Your task to perform on an android device: make emails show in primary in the gmail app Image 0: 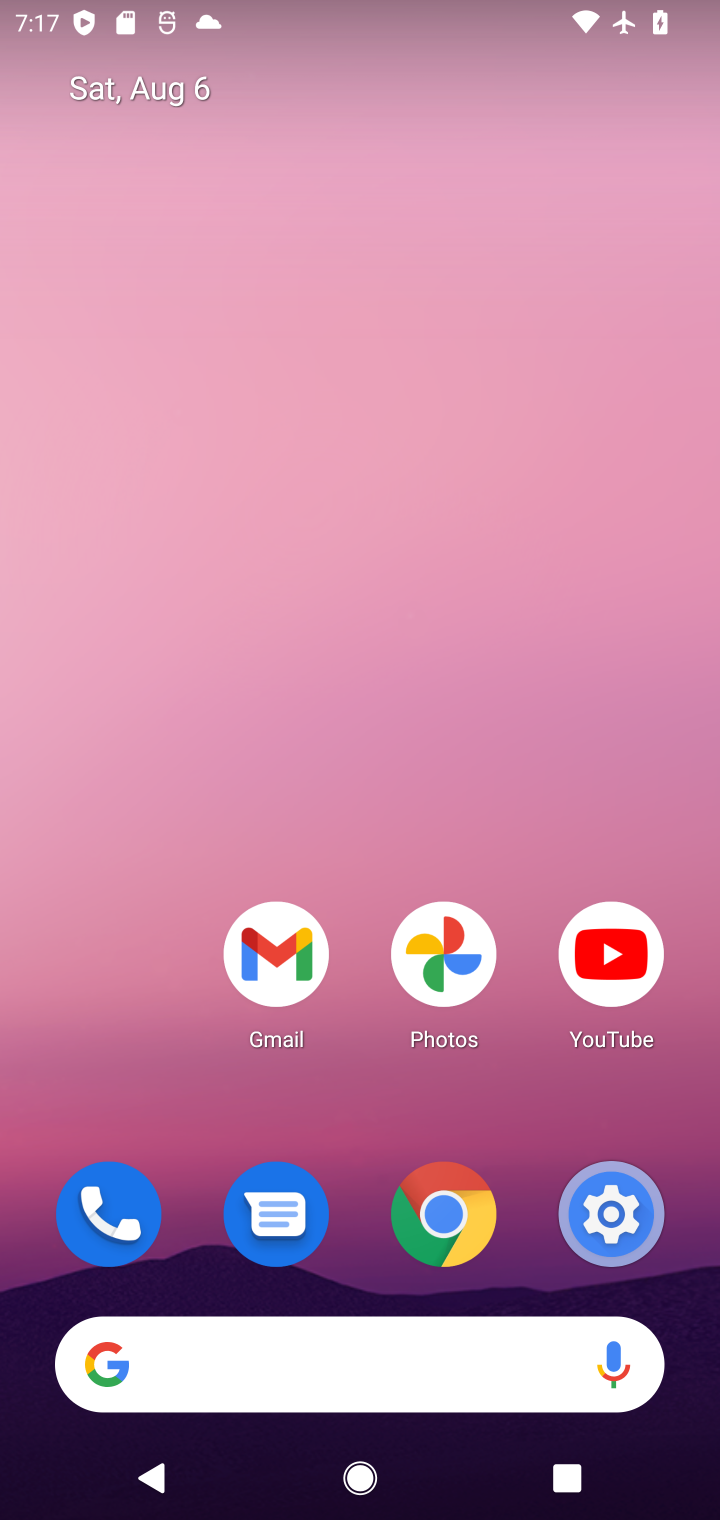
Step 0: click (289, 913)
Your task to perform on an android device: make emails show in primary in the gmail app Image 1: 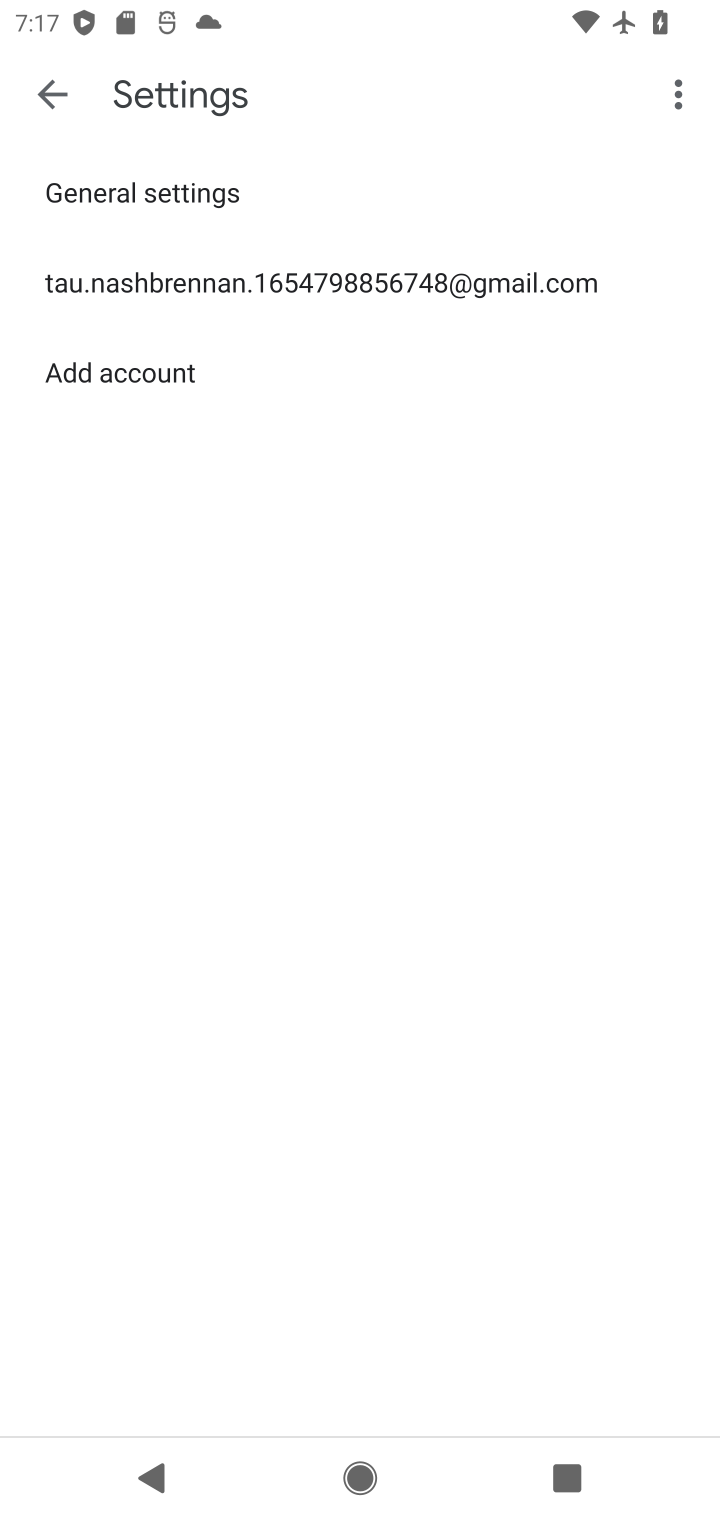
Step 1: click (207, 286)
Your task to perform on an android device: make emails show in primary in the gmail app Image 2: 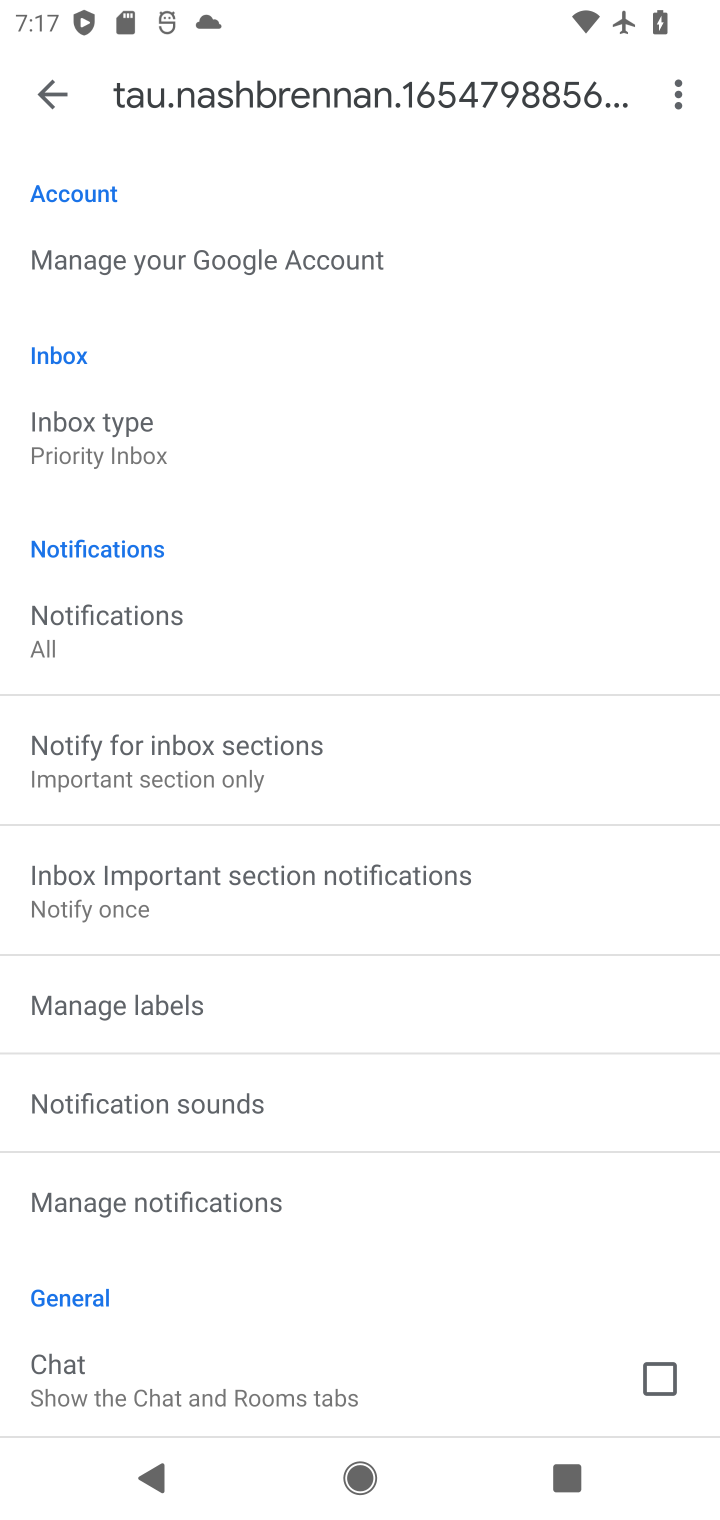
Step 2: click (130, 428)
Your task to perform on an android device: make emails show in primary in the gmail app Image 3: 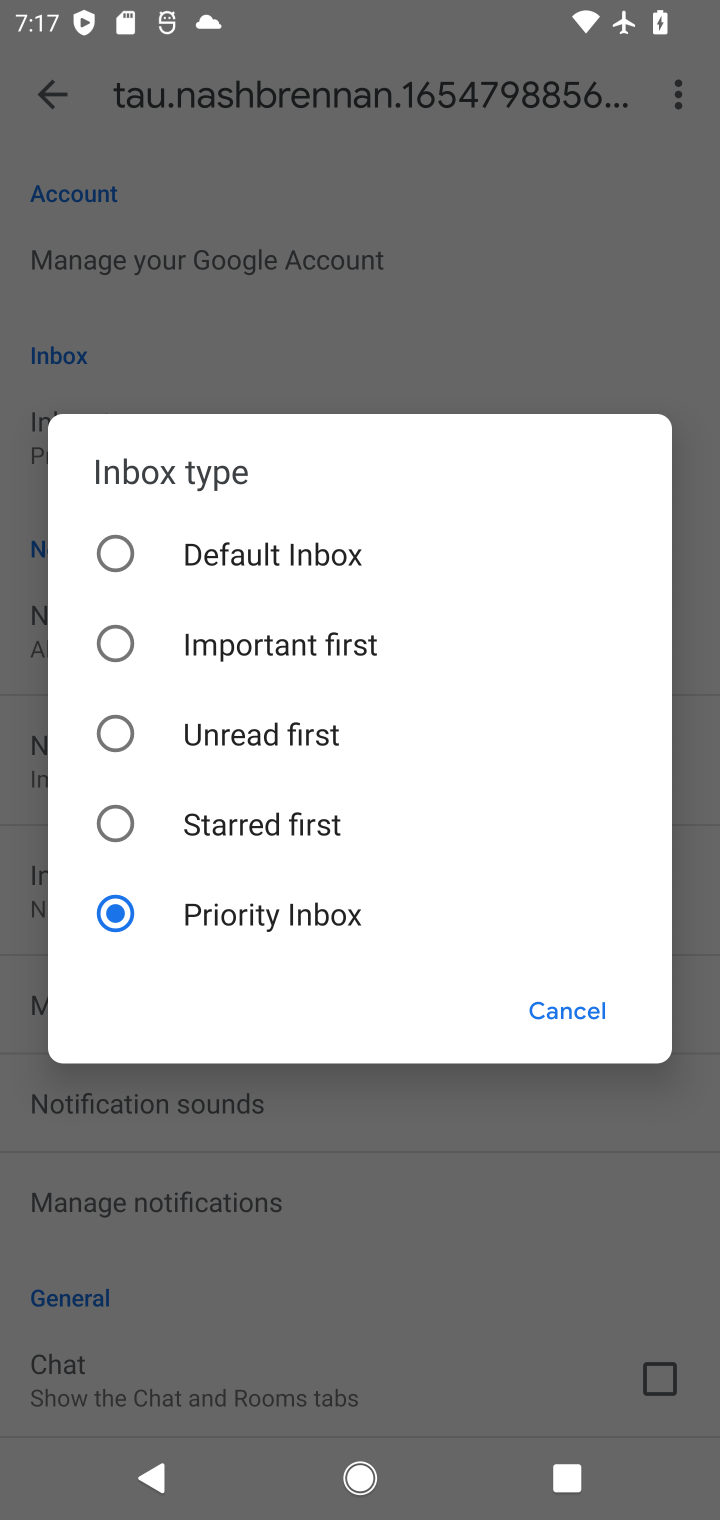
Step 3: click (225, 563)
Your task to perform on an android device: make emails show in primary in the gmail app Image 4: 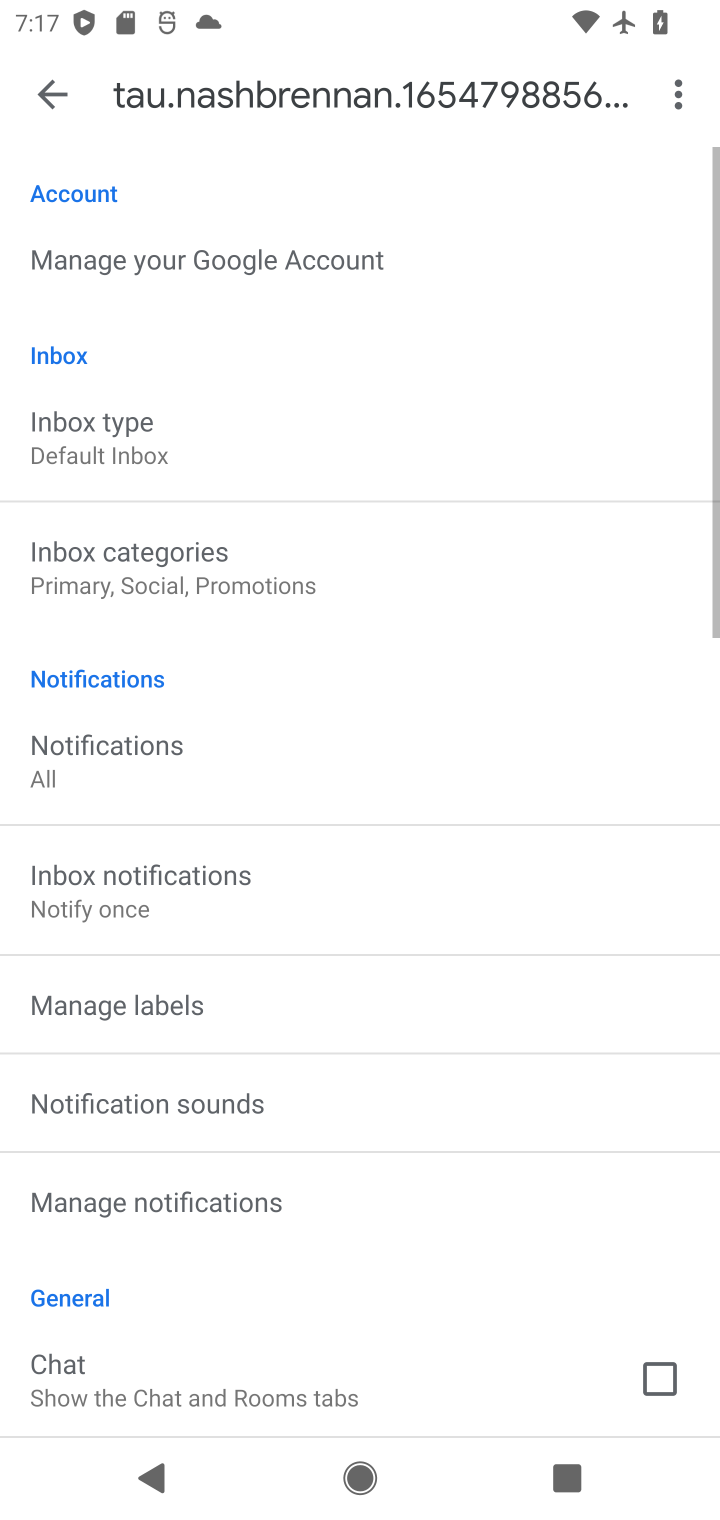
Step 4: click (223, 567)
Your task to perform on an android device: make emails show in primary in the gmail app Image 5: 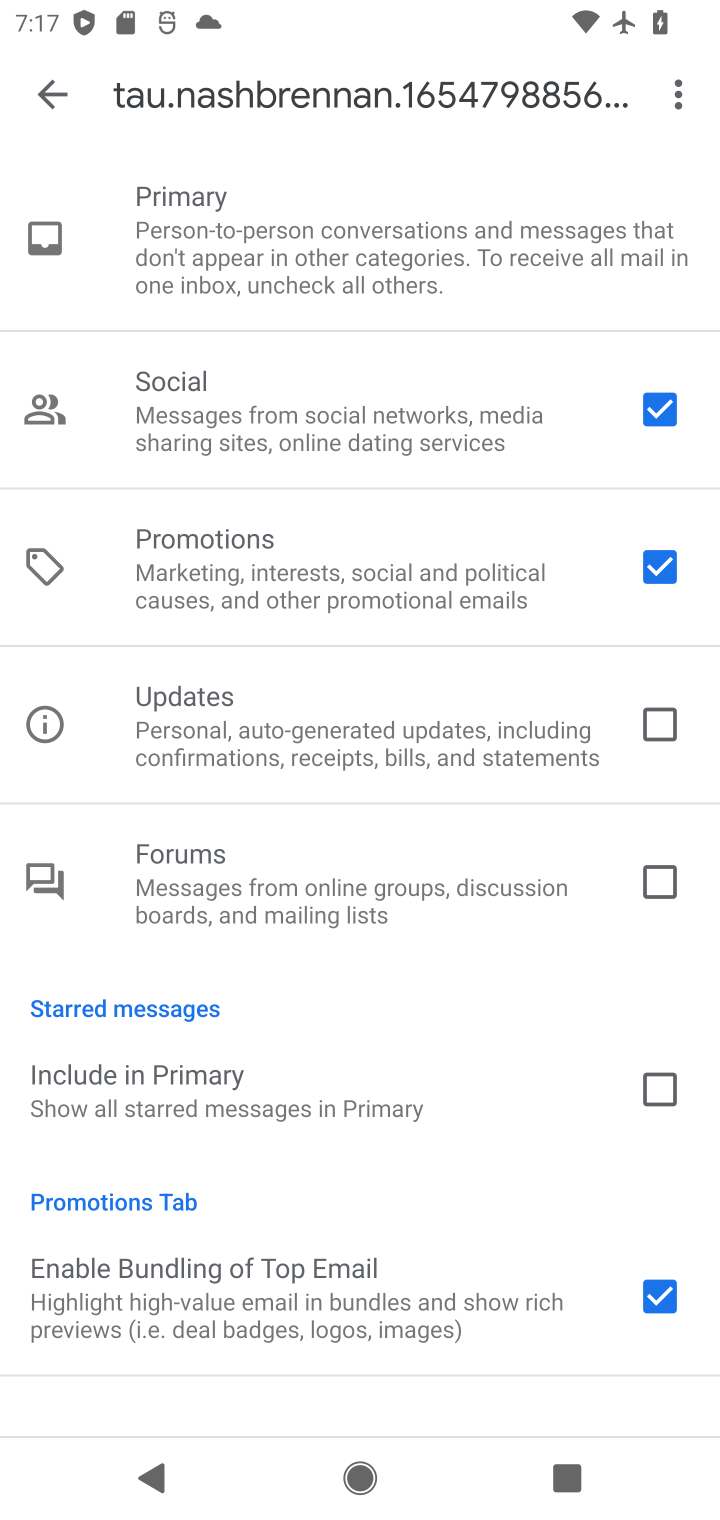
Step 5: click (674, 554)
Your task to perform on an android device: make emails show in primary in the gmail app Image 6: 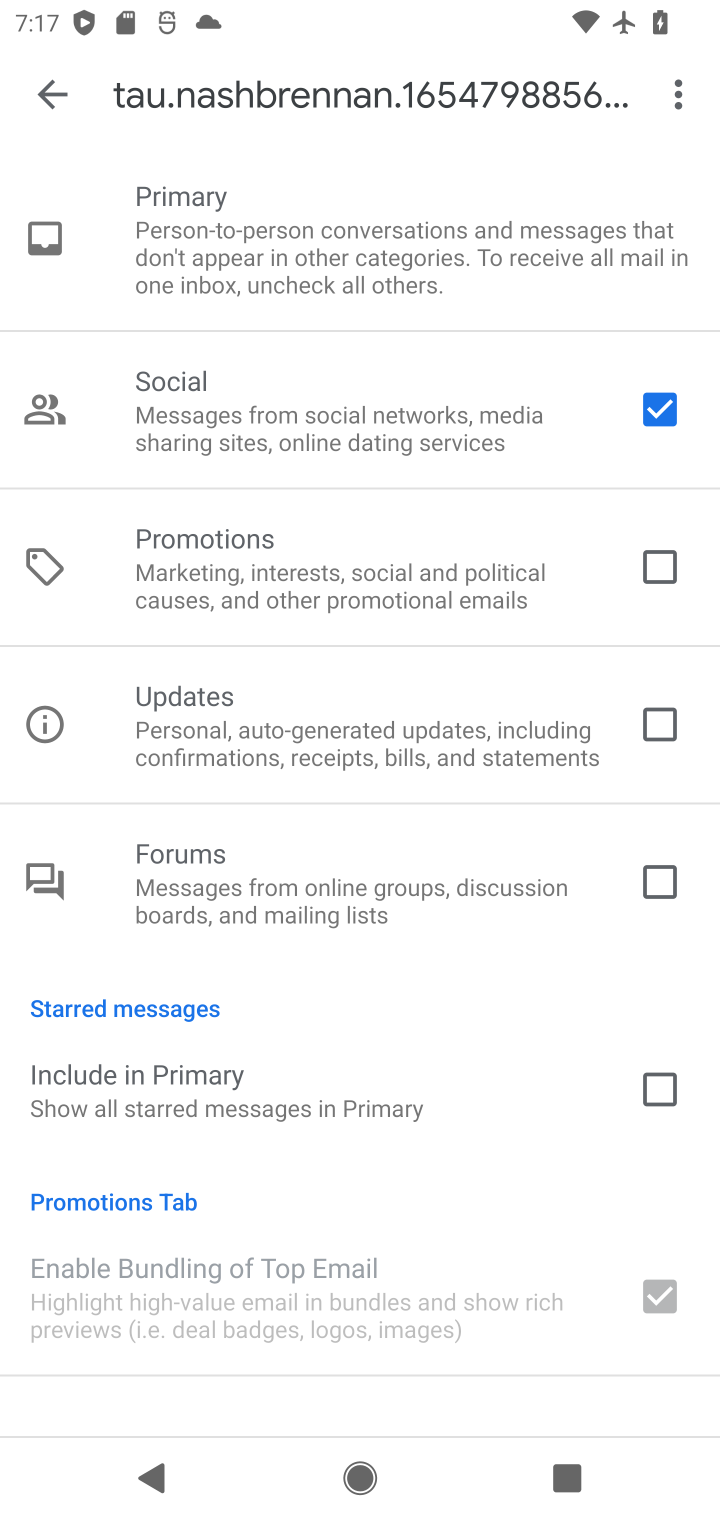
Step 6: click (671, 402)
Your task to perform on an android device: make emails show in primary in the gmail app Image 7: 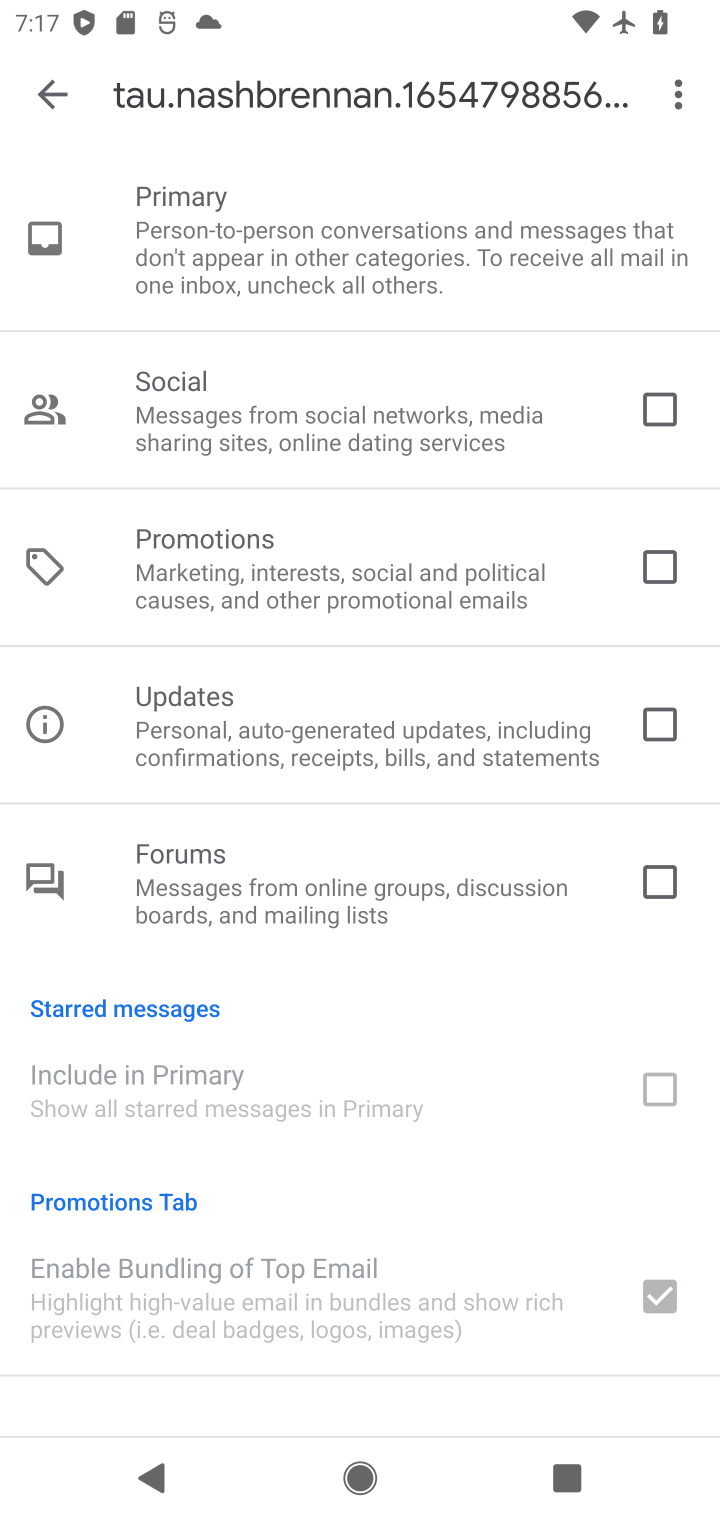
Step 7: task complete